Your task to perform on an android device: turn on sleep mode Image 0: 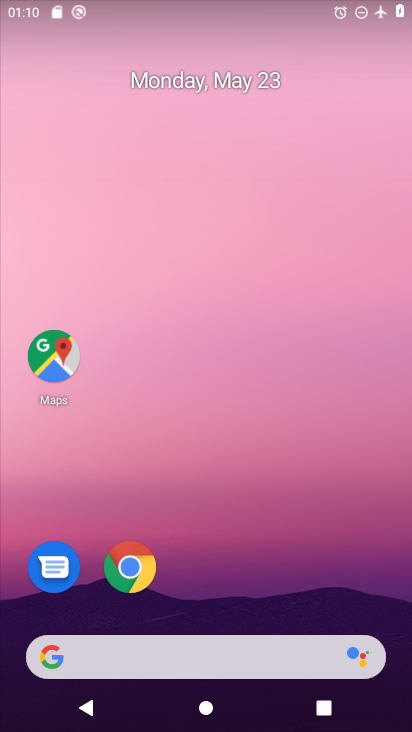
Step 0: drag from (217, 579) to (238, 265)
Your task to perform on an android device: turn on sleep mode Image 1: 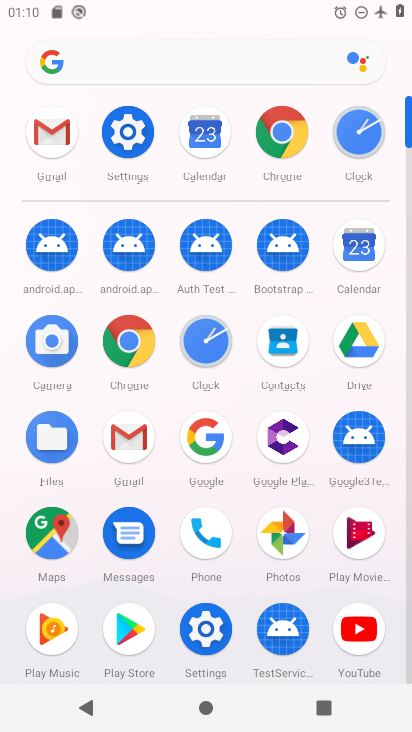
Step 1: click (114, 142)
Your task to perform on an android device: turn on sleep mode Image 2: 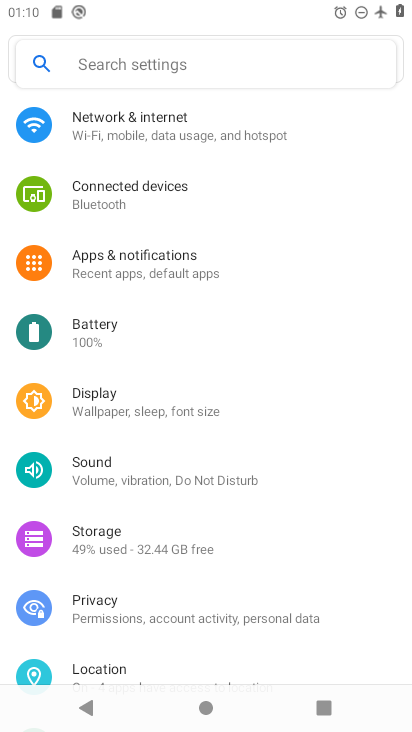
Step 2: click (185, 420)
Your task to perform on an android device: turn on sleep mode Image 3: 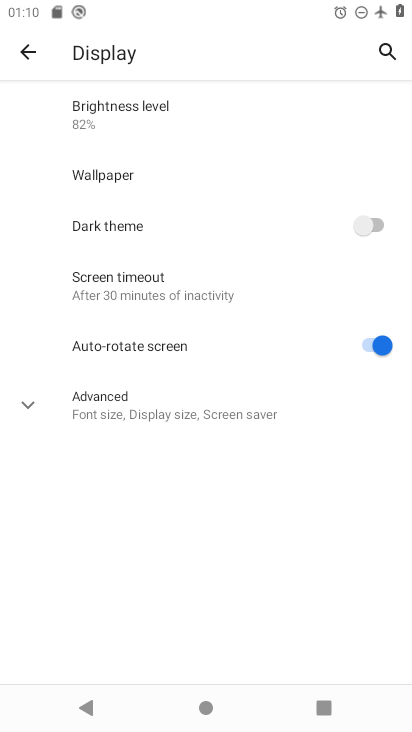
Step 3: click (196, 288)
Your task to perform on an android device: turn on sleep mode Image 4: 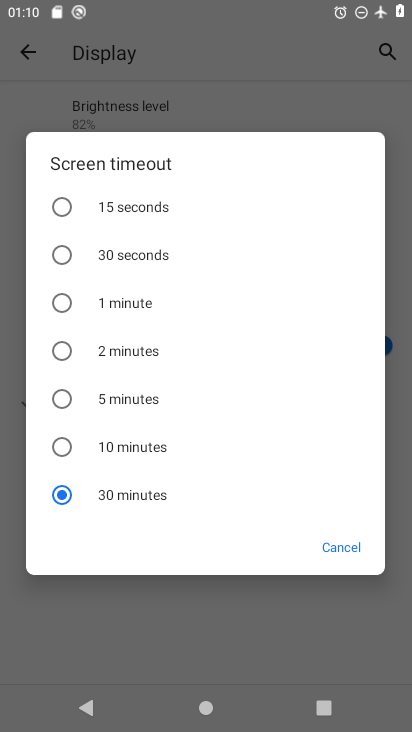
Step 4: click (172, 307)
Your task to perform on an android device: turn on sleep mode Image 5: 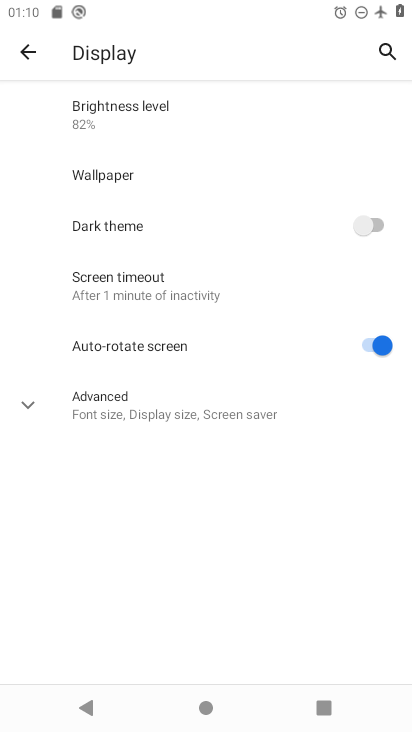
Step 5: task complete